Your task to perform on an android device: Search for usb-b on ebay.com, select the first entry, add it to the cart, then select checkout. Image 0: 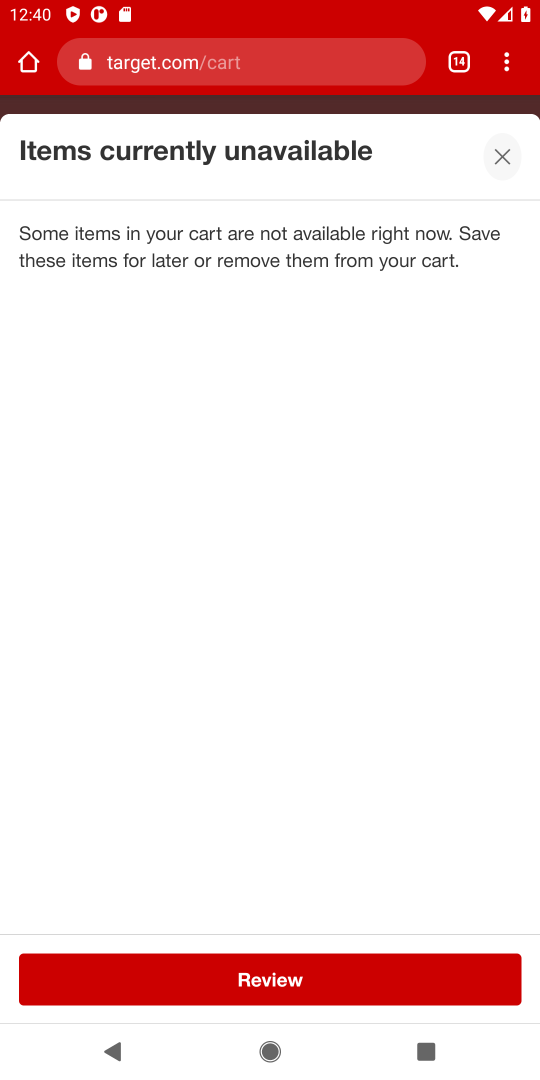
Step 0: drag from (220, 902) to (166, 486)
Your task to perform on an android device: Search for usb-b on ebay.com, select the first entry, add it to the cart, then select checkout. Image 1: 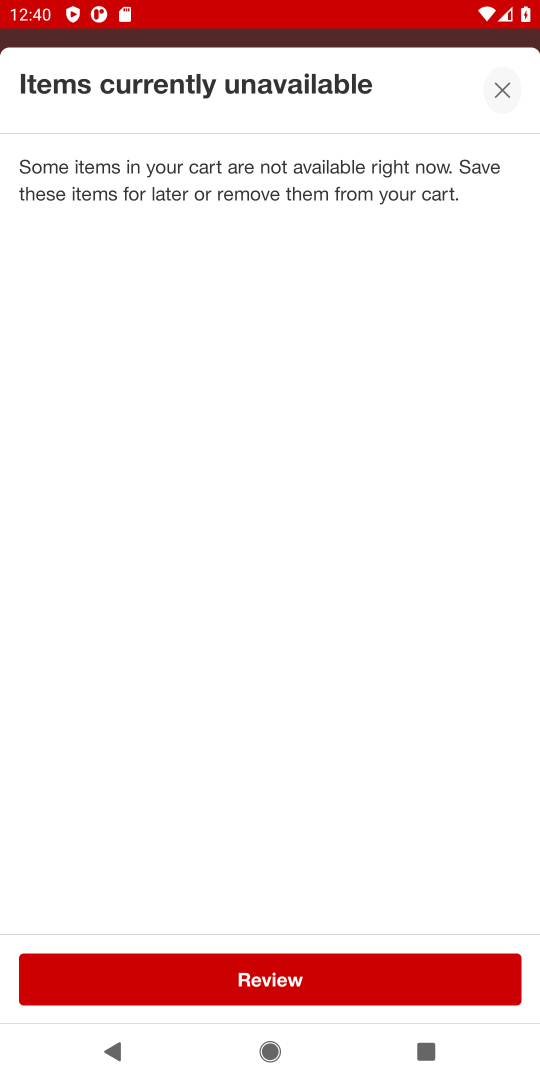
Step 1: press back button
Your task to perform on an android device: Search for usb-b on ebay.com, select the first entry, add it to the cart, then select checkout. Image 2: 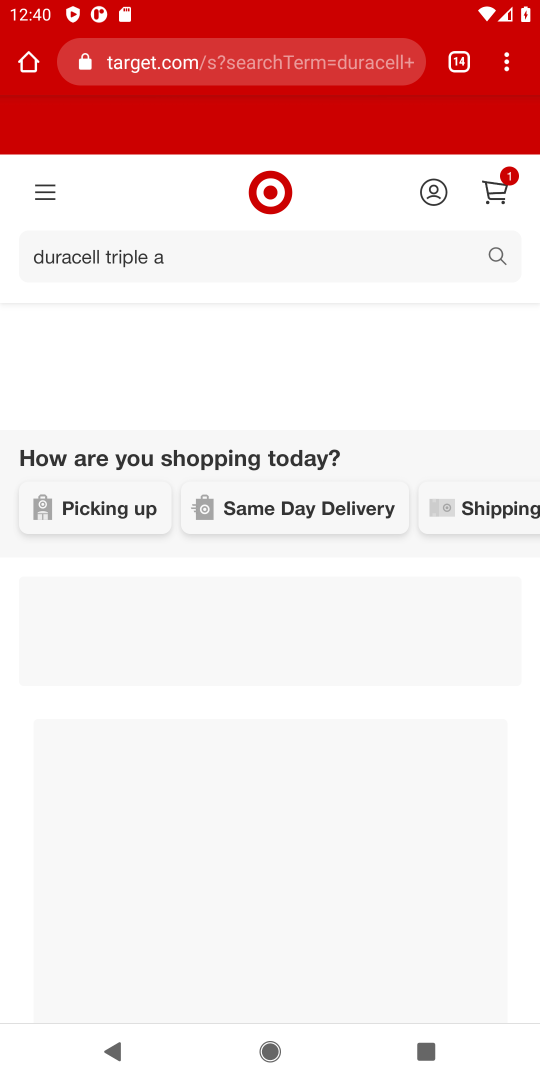
Step 2: press home button
Your task to perform on an android device: Search for usb-b on ebay.com, select the first entry, add it to the cart, then select checkout. Image 3: 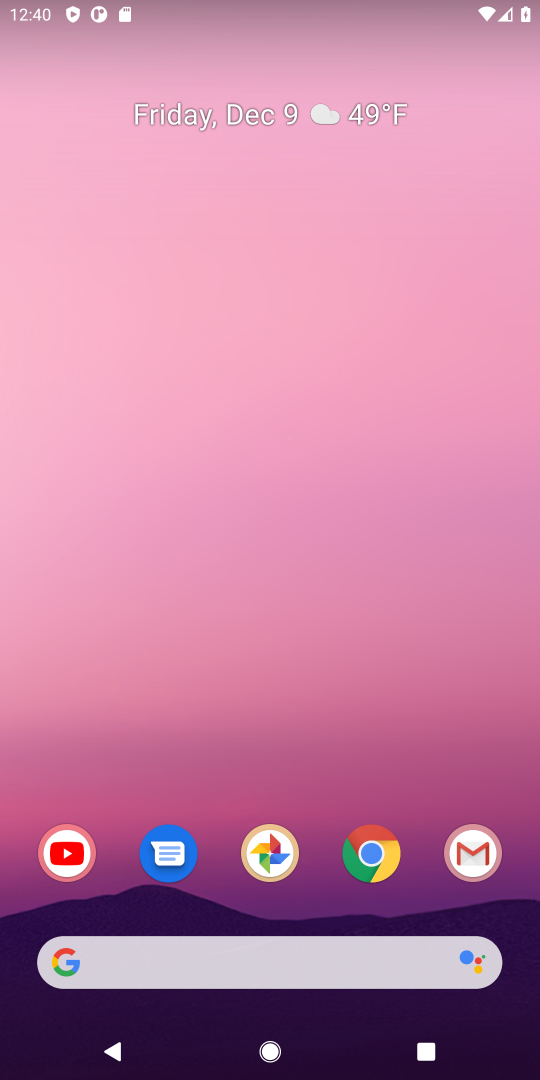
Step 3: drag from (188, 966) to (336, 189)
Your task to perform on an android device: Search for usb-b on ebay.com, select the first entry, add it to the cart, then select checkout. Image 4: 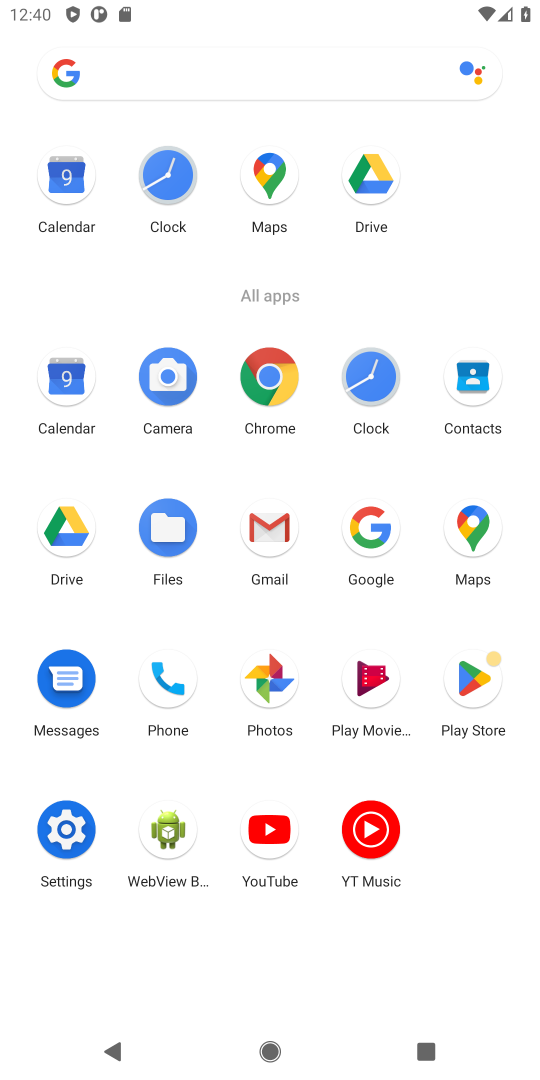
Step 4: click (371, 536)
Your task to perform on an android device: Search for usb-b on ebay.com, select the first entry, add it to the cart, then select checkout. Image 5: 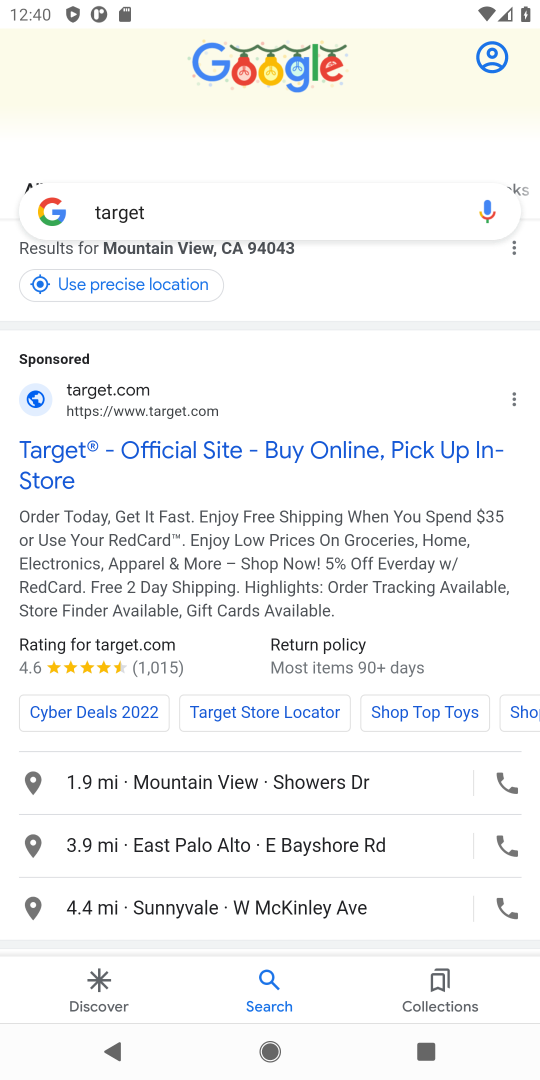
Step 5: click (172, 219)
Your task to perform on an android device: Search for usb-b on ebay.com, select the first entry, add it to the cart, then select checkout. Image 6: 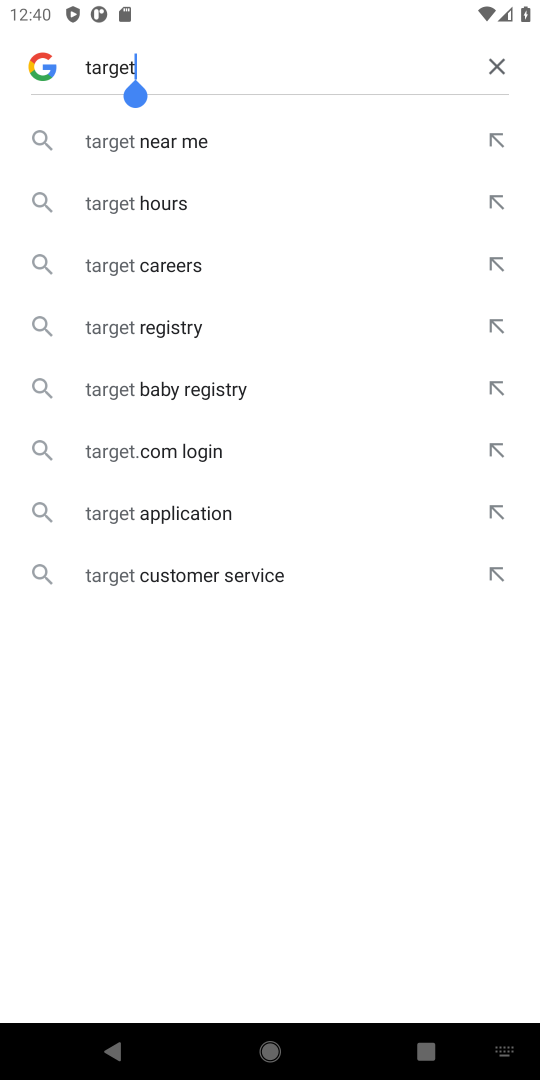
Step 6: click (494, 70)
Your task to perform on an android device: Search for usb-b on ebay.com, select the first entry, add it to the cart, then select checkout. Image 7: 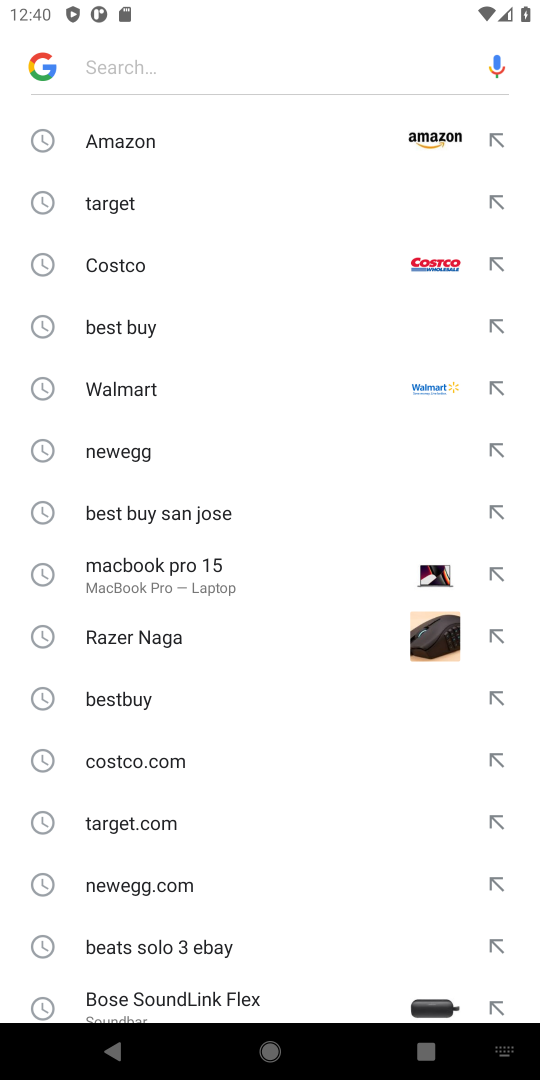
Step 7: drag from (216, 732) to (204, 116)
Your task to perform on an android device: Search for usb-b on ebay.com, select the first entry, add it to the cart, then select checkout. Image 8: 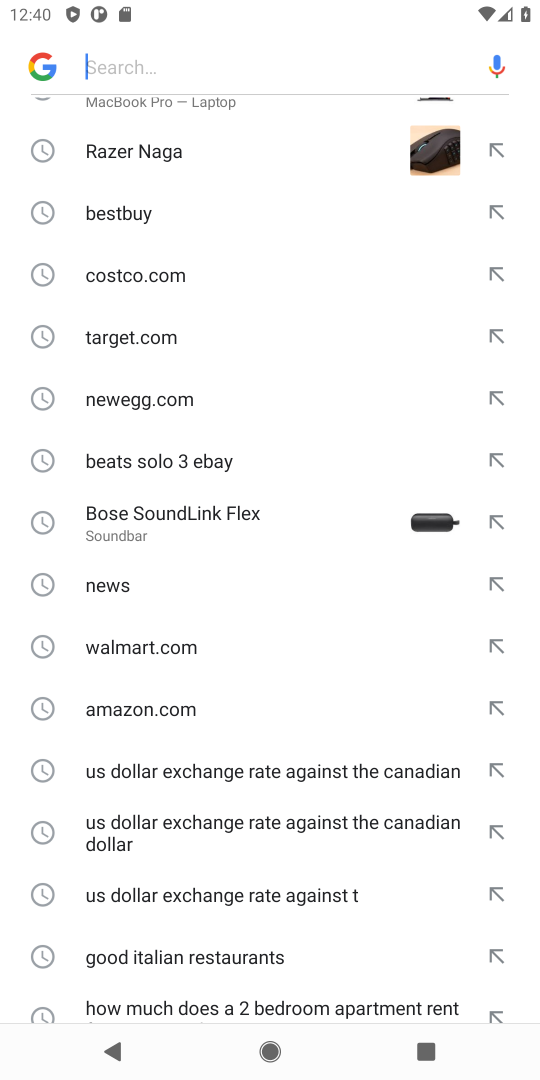
Step 8: drag from (169, 821) to (153, 194)
Your task to perform on an android device: Search for usb-b on ebay.com, select the first entry, add it to the cart, then select checkout. Image 9: 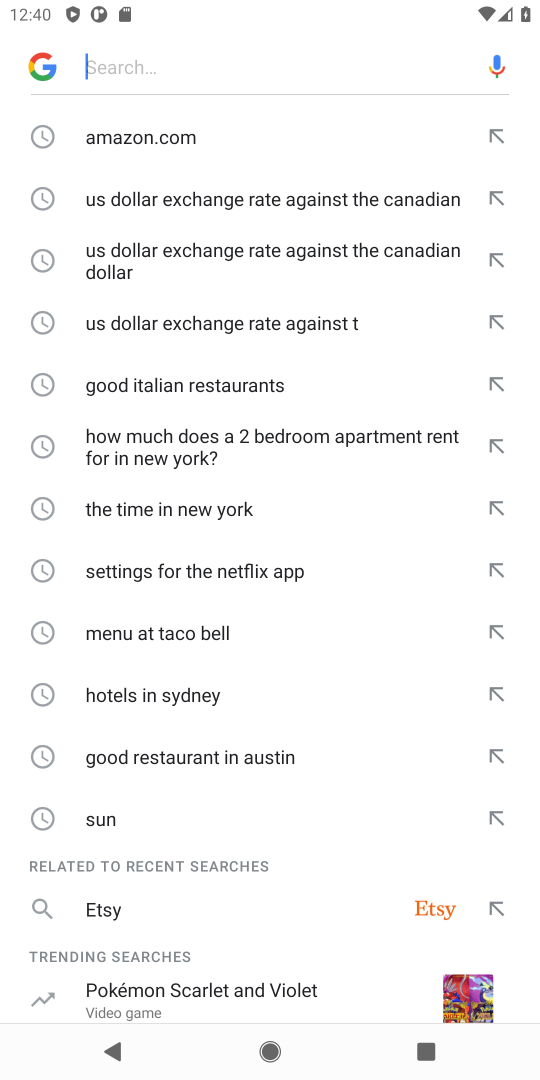
Step 9: drag from (292, 245) to (332, 789)
Your task to perform on an android device: Search for usb-b on ebay.com, select the first entry, add it to the cart, then select checkout. Image 10: 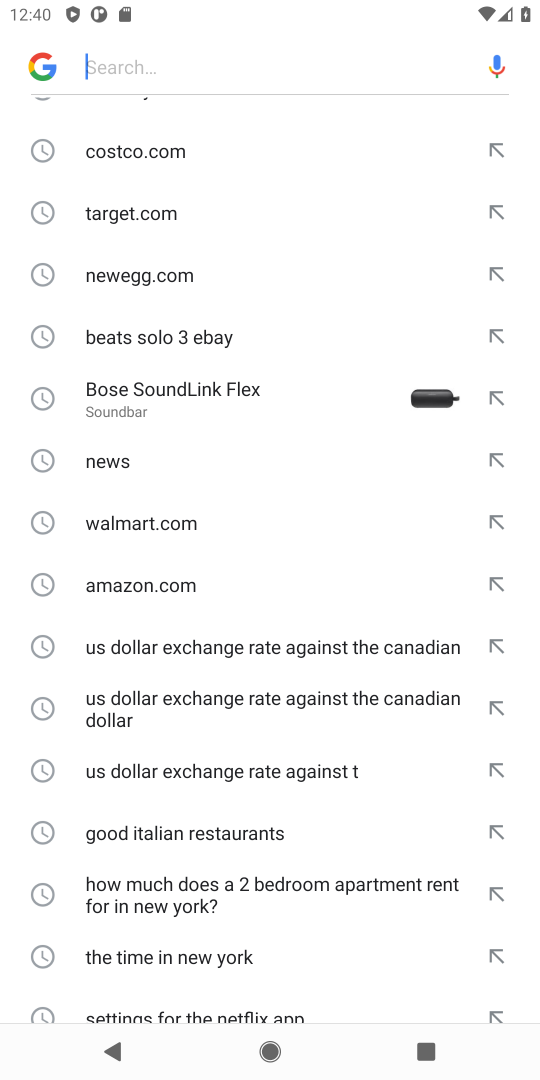
Step 10: drag from (189, 151) to (237, 685)
Your task to perform on an android device: Search for usb-b on ebay.com, select the first entry, add it to the cart, then select checkout. Image 11: 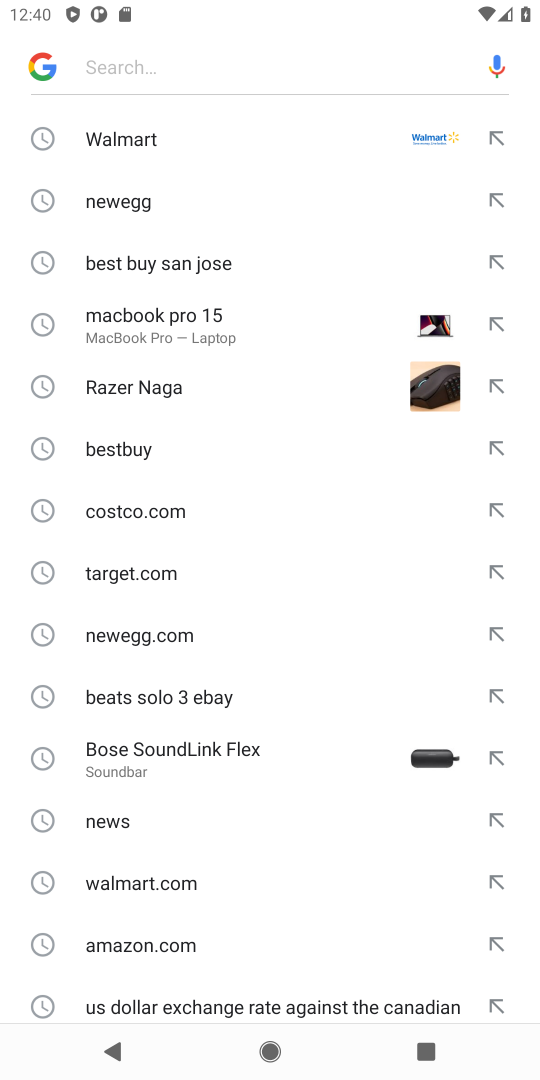
Step 11: drag from (138, 156) to (174, 610)
Your task to perform on an android device: Search for usb-b on ebay.com, select the first entry, add it to the cart, then select checkout. Image 12: 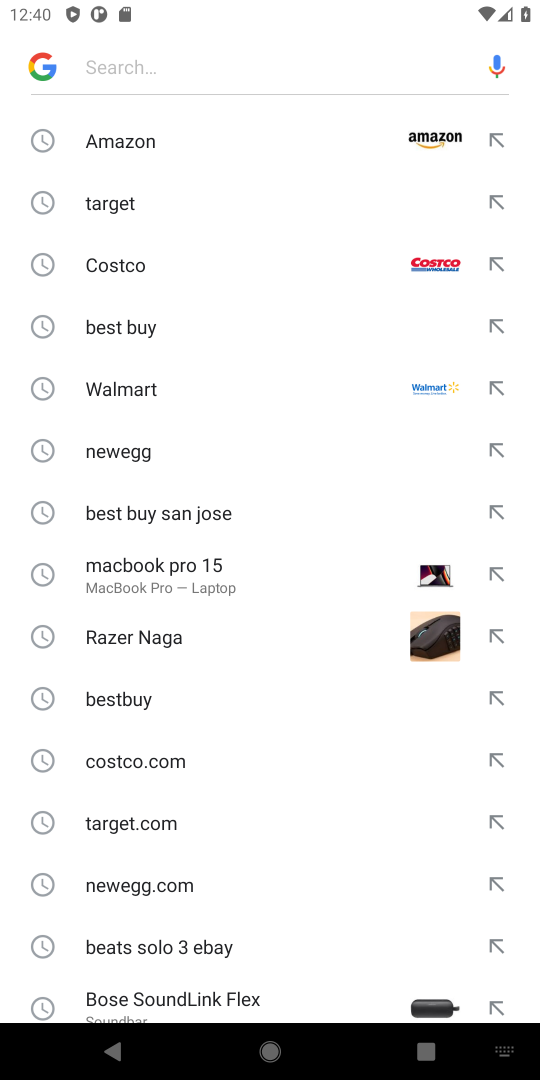
Step 12: drag from (174, 203) to (197, 640)
Your task to perform on an android device: Search for usb-b on ebay.com, select the first entry, add it to the cart, then select checkout. Image 13: 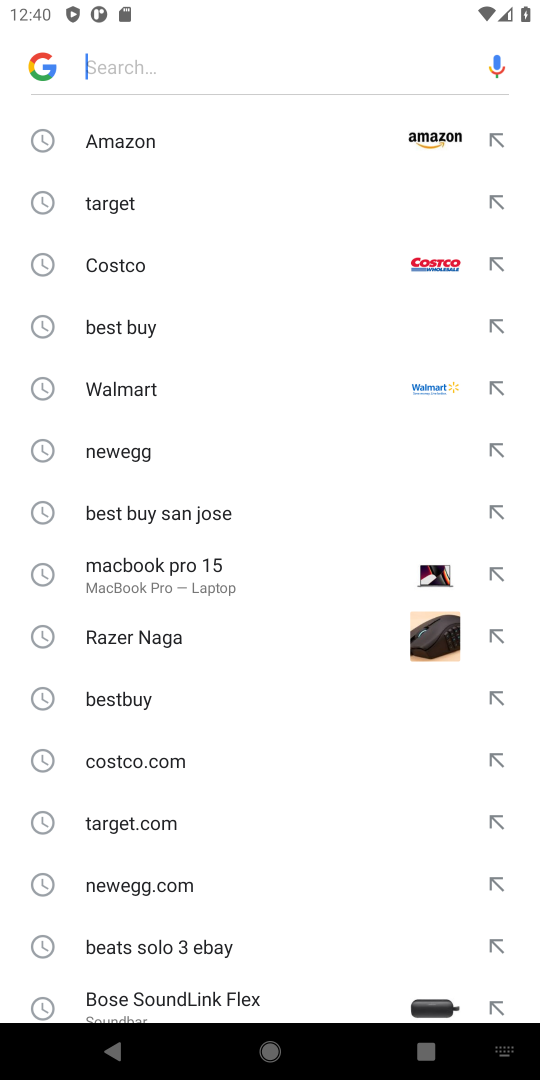
Step 13: type "ebay"
Your task to perform on an android device: Search for usb-b on ebay.com, select the first entry, add it to the cart, then select checkout. Image 14: 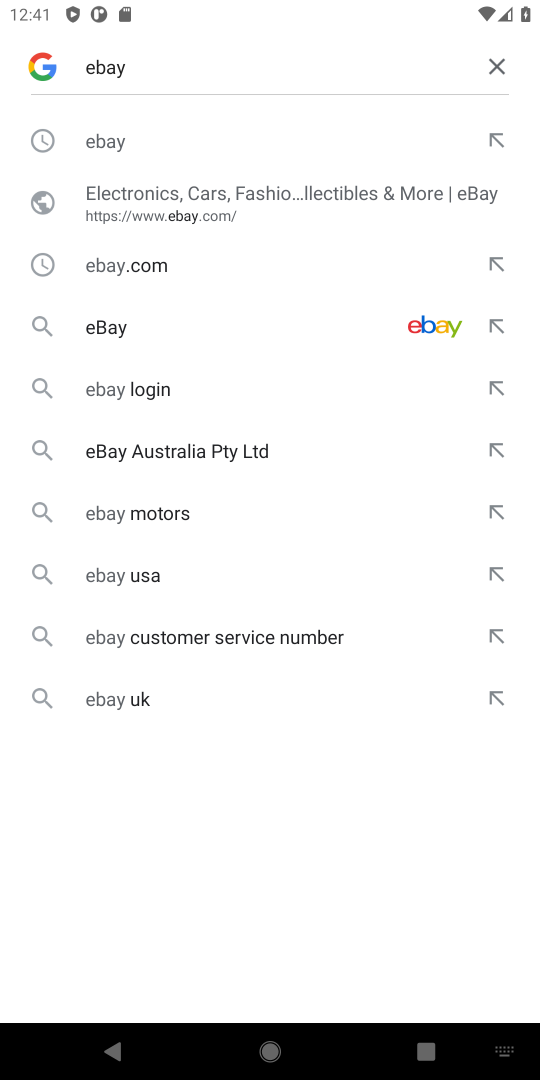
Step 14: click (252, 184)
Your task to perform on an android device: Search for usb-b on ebay.com, select the first entry, add it to the cart, then select checkout. Image 15: 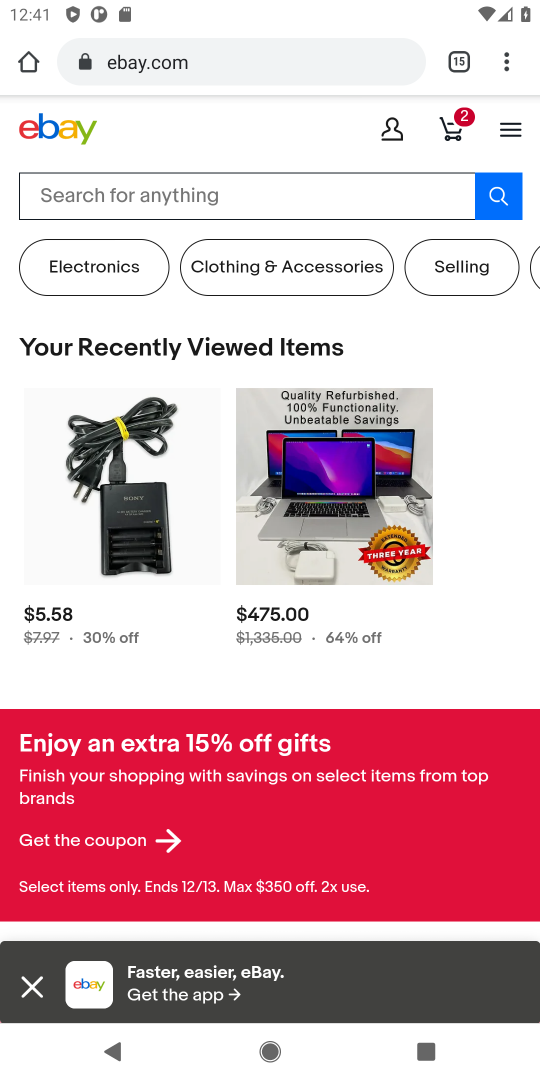
Step 15: click (214, 197)
Your task to perform on an android device: Search for usb-b on ebay.com, select the first entry, add it to the cart, then select checkout. Image 16: 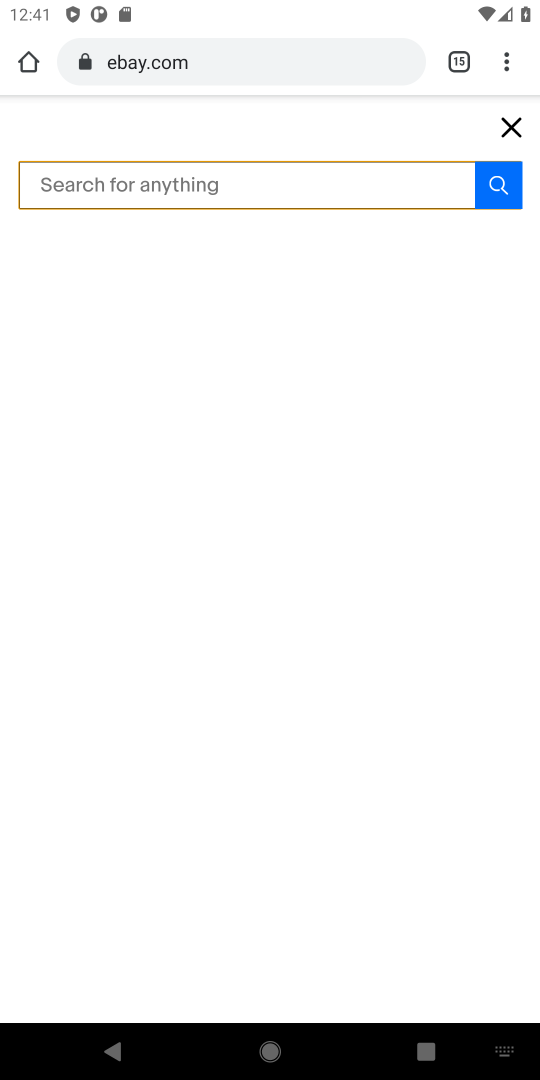
Step 16: type "usb-b"
Your task to perform on an android device: Search for usb-b on ebay.com, select the first entry, add it to the cart, then select checkout. Image 17: 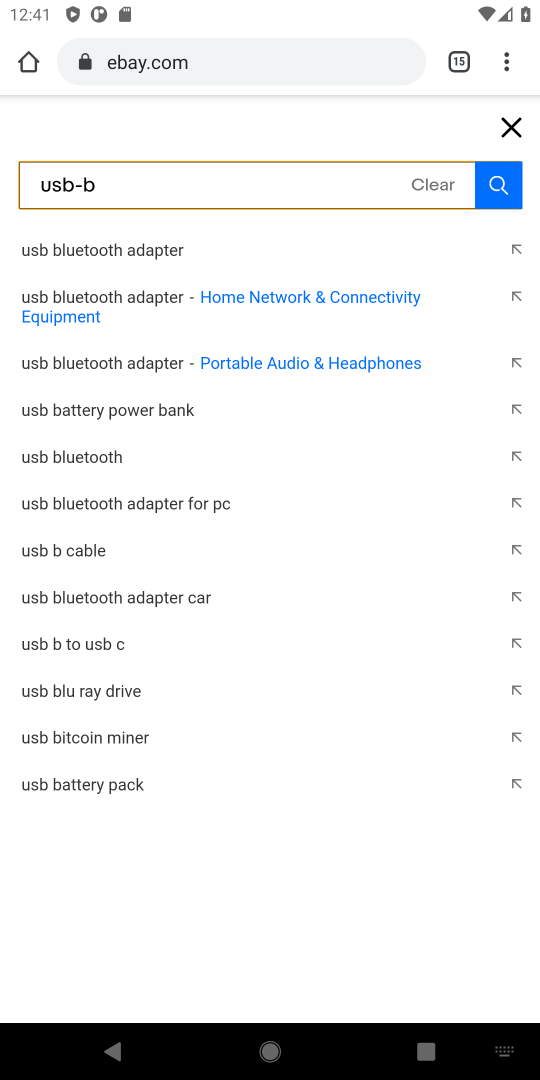
Step 17: click (51, 552)
Your task to perform on an android device: Search for usb-b on ebay.com, select the first entry, add it to the cart, then select checkout. Image 18: 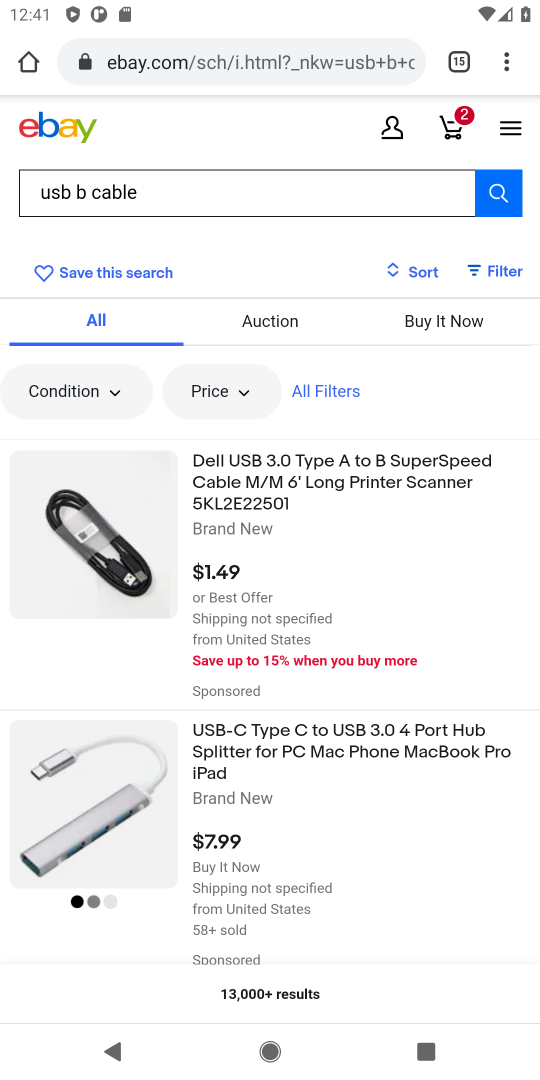
Step 18: click (208, 483)
Your task to perform on an android device: Search for usb-b on ebay.com, select the first entry, add it to the cart, then select checkout. Image 19: 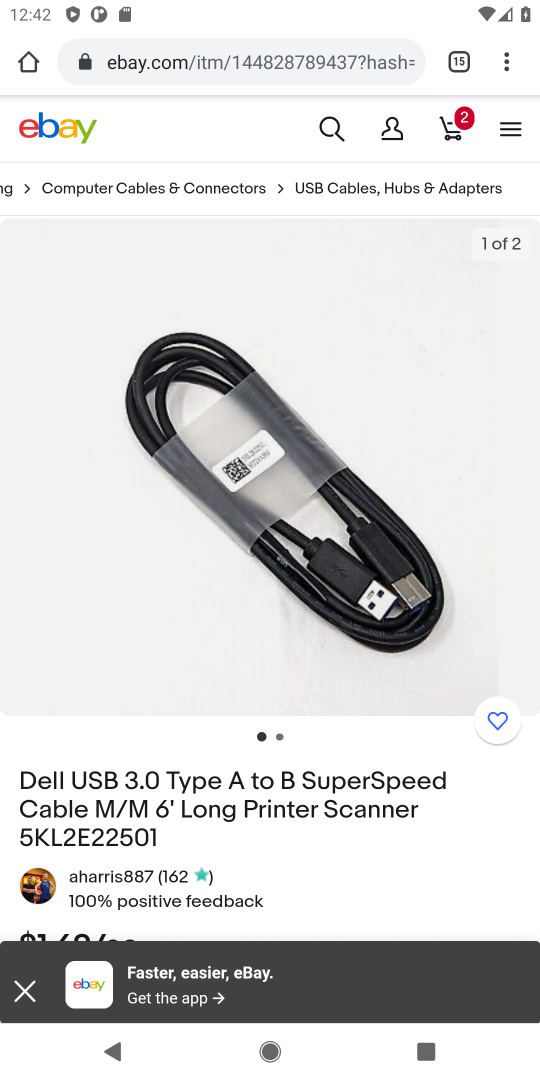
Step 19: drag from (340, 817) to (358, 261)
Your task to perform on an android device: Search for usb-b on ebay.com, select the first entry, add it to the cart, then select checkout. Image 20: 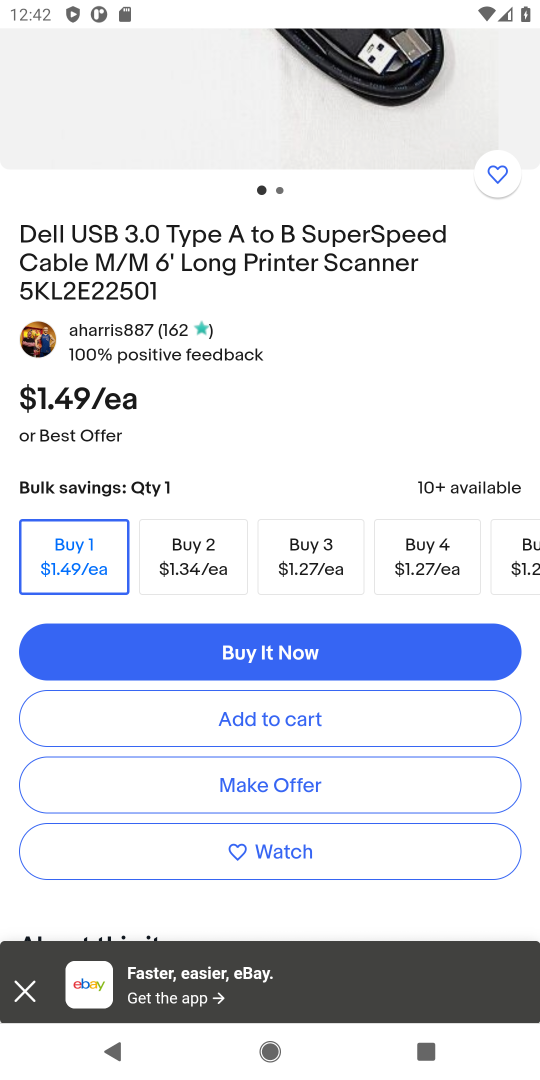
Step 20: click (354, 715)
Your task to perform on an android device: Search for usb-b on ebay.com, select the first entry, add it to the cart, then select checkout. Image 21: 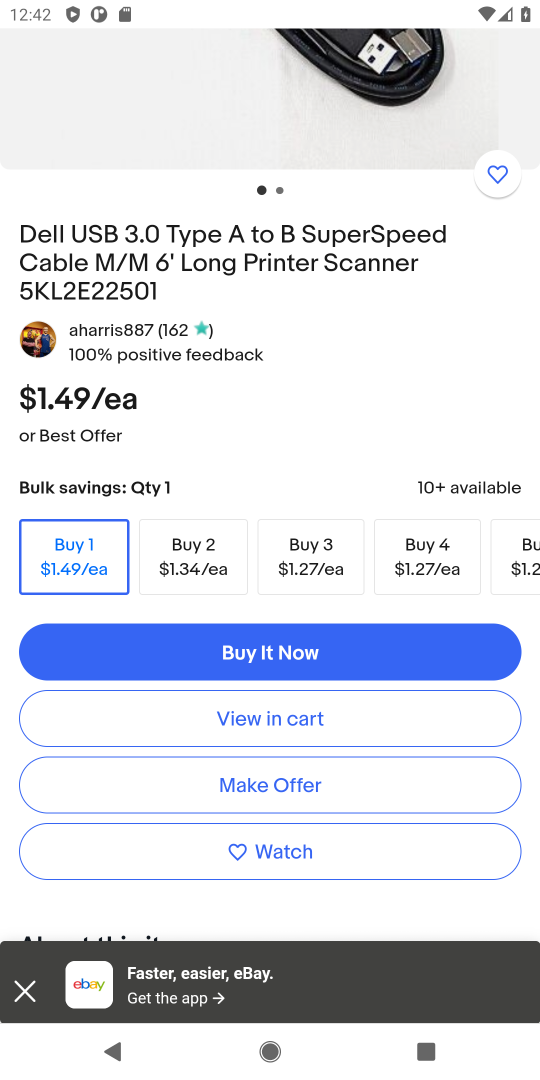
Step 21: click (308, 711)
Your task to perform on an android device: Search for usb-b on ebay.com, select the first entry, add it to the cart, then select checkout. Image 22: 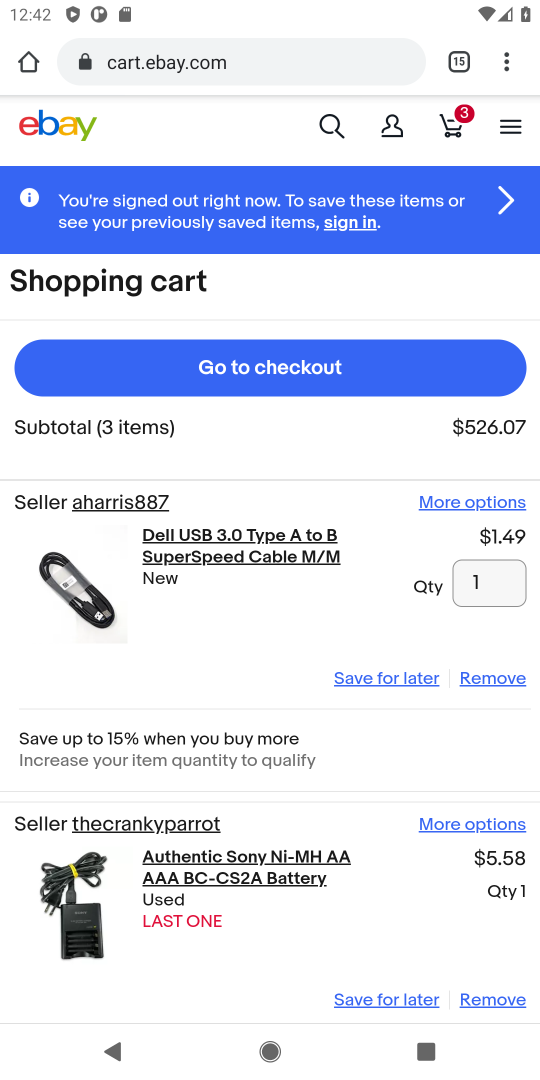
Step 22: click (331, 370)
Your task to perform on an android device: Search for usb-b on ebay.com, select the first entry, add it to the cart, then select checkout. Image 23: 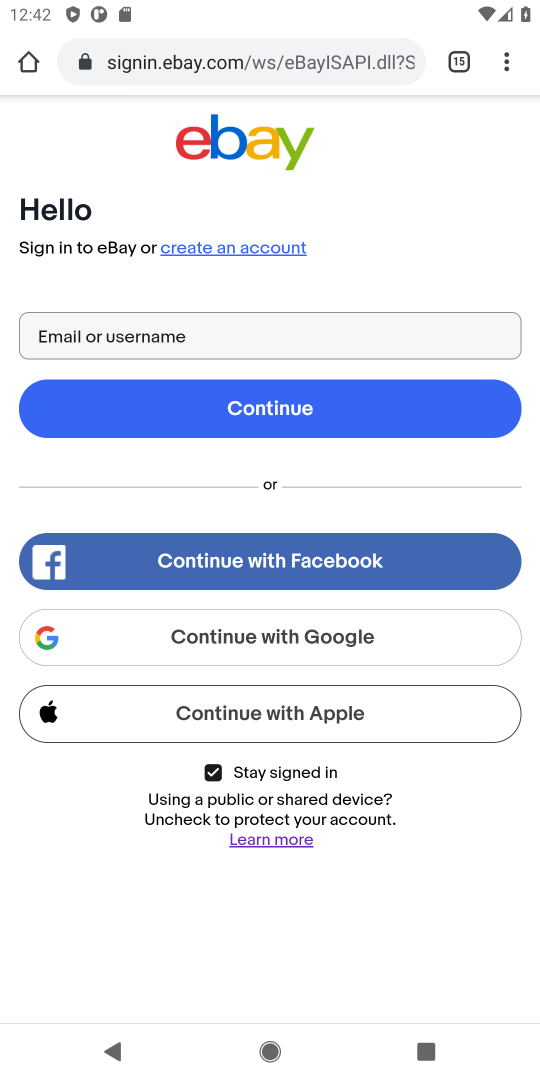
Step 23: task complete